Your task to perform on an android device: Open Google Maps and go to "Timeline" Image 0: 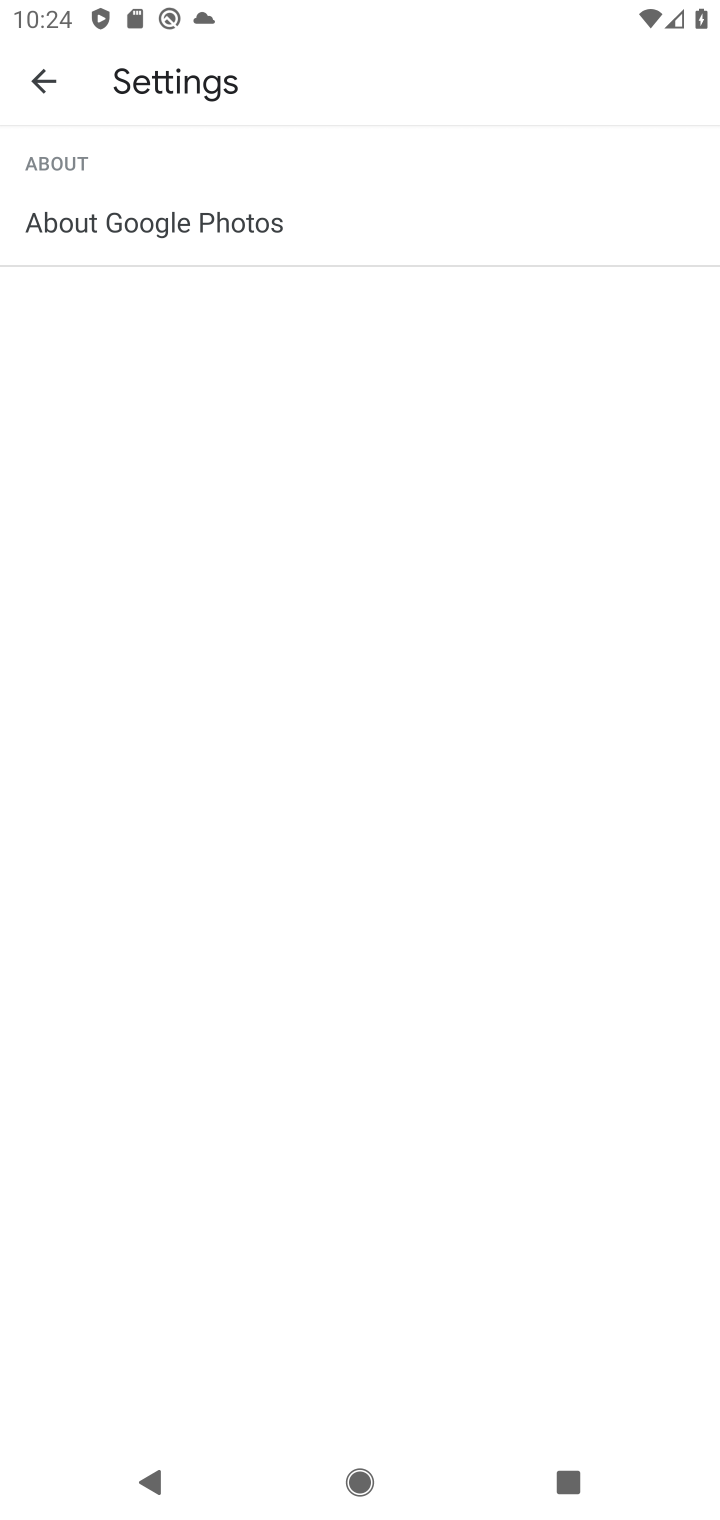
Step 0: press back button
Your task to perform on an android device: Open Google Maps and go to "Timeline" Image 1: 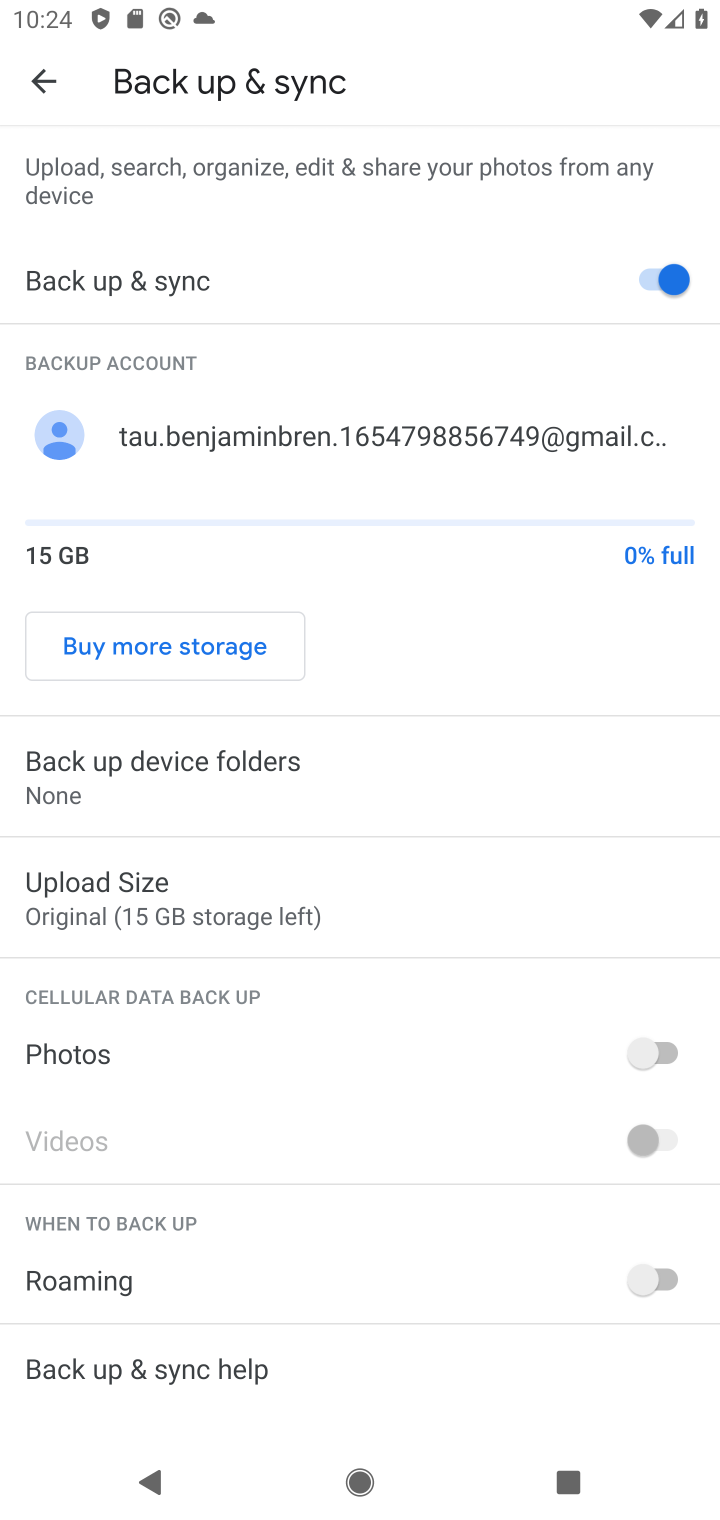
Step 1: press back button
Your task to perform on an android device: Open Google Maps and go to "Timeline" Image 2: 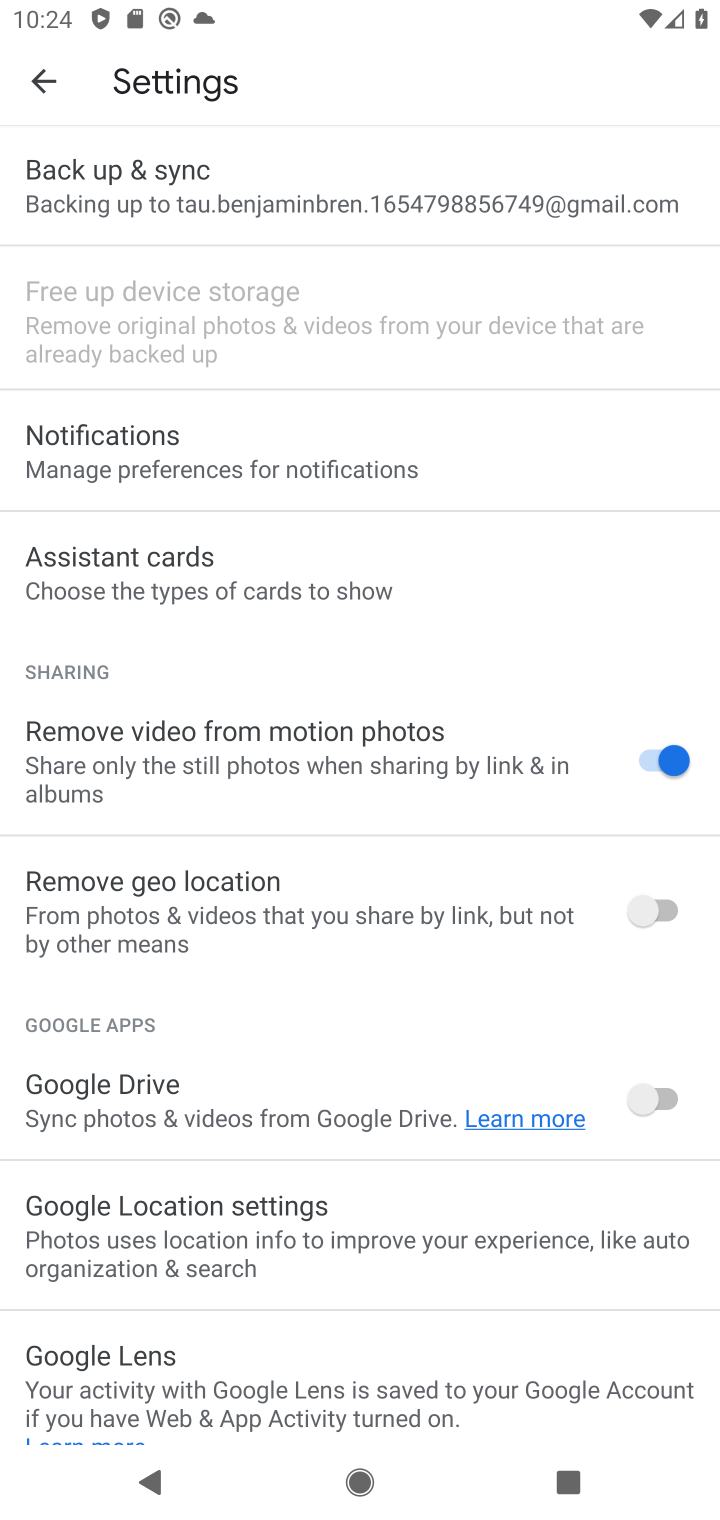
Step 2: press back button
Your task to perform on an android device: Open Google Maps and go to "Timeline" Image 3: 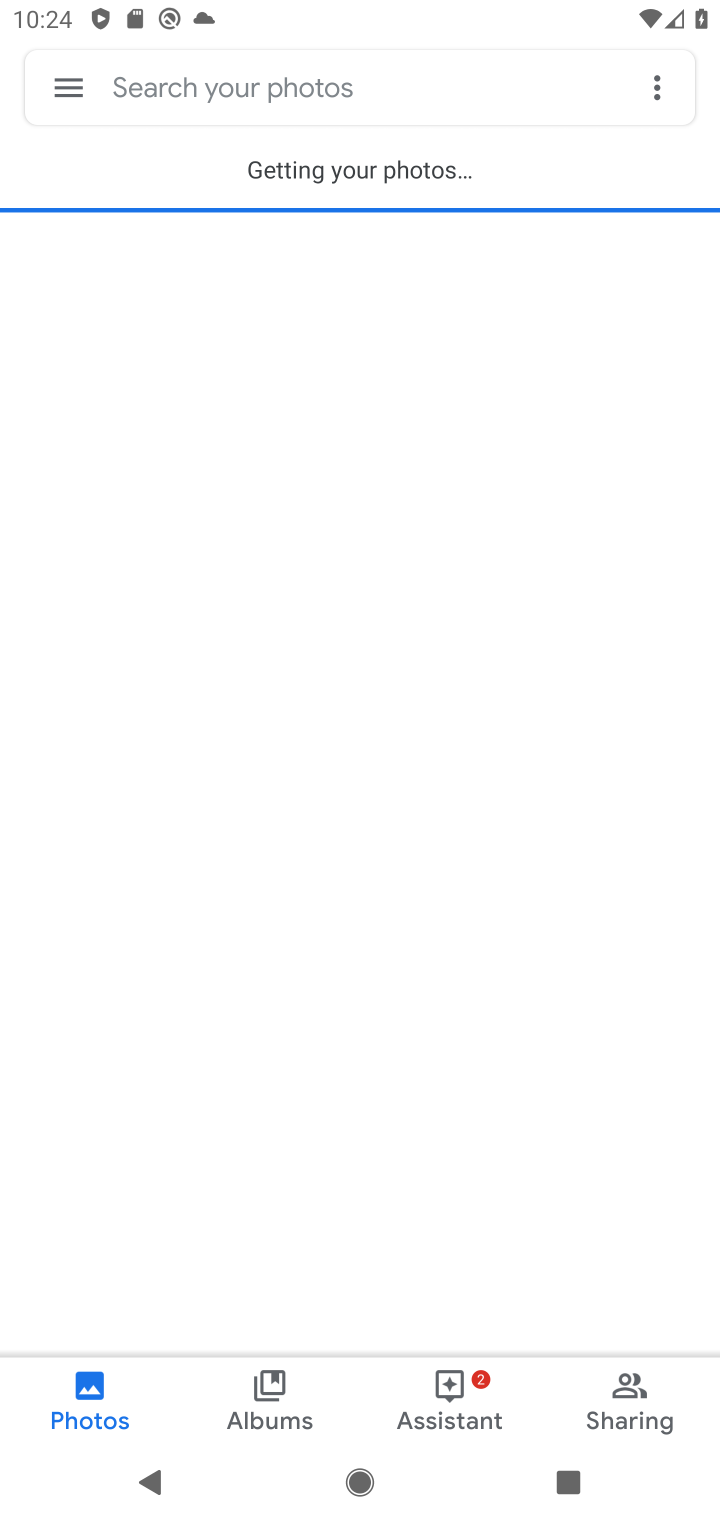
Step 3: press home button
Your task to perform on an android device: Open Google Maps and go to "Timeline" Image 4: 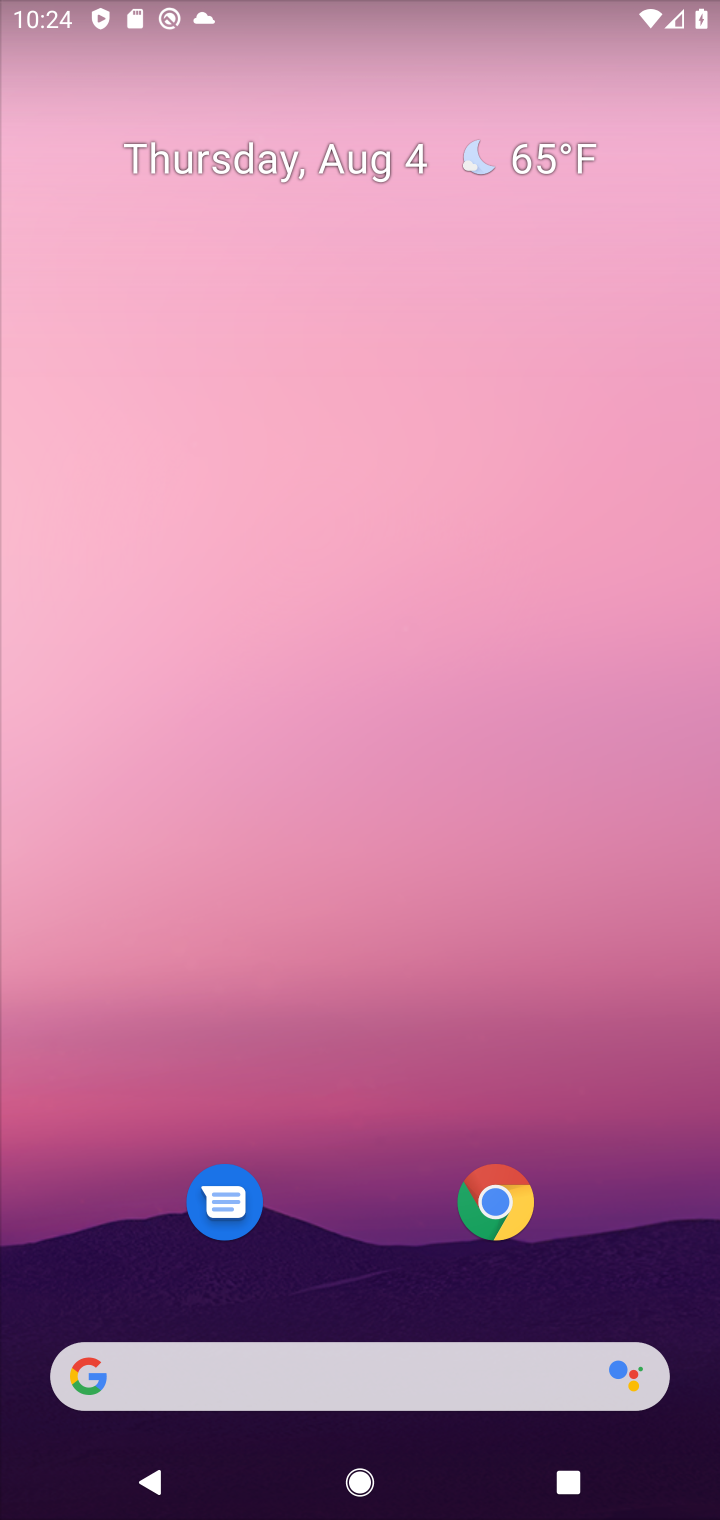
Step 4: drag from (389, 1076) to (501, 12)
Your task to perform on an android device: Open Google Maps and go to "Timeline" Image 5: 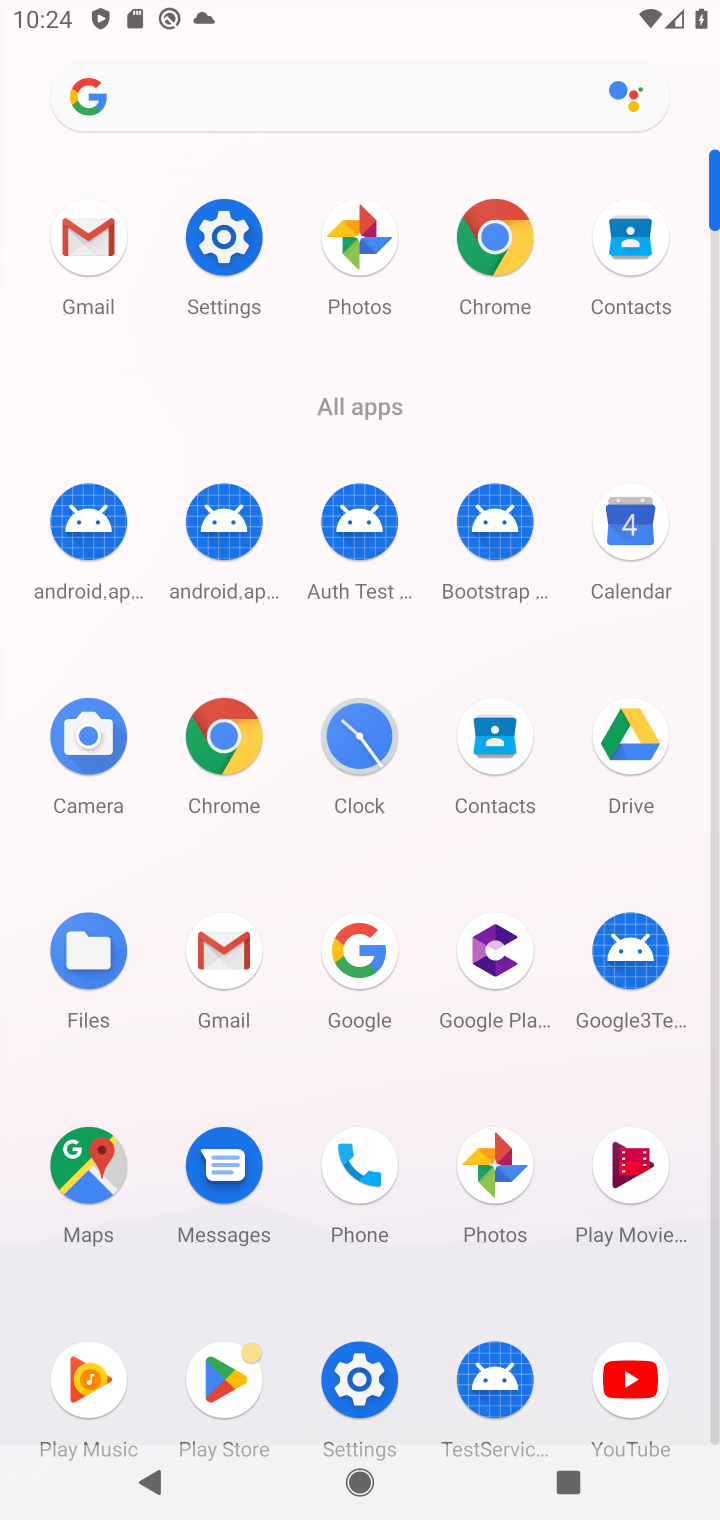
Step 5: click (107, 1167)
Your task to perform on an android device: Open Google Maps and go to "Timeline" Image 6: 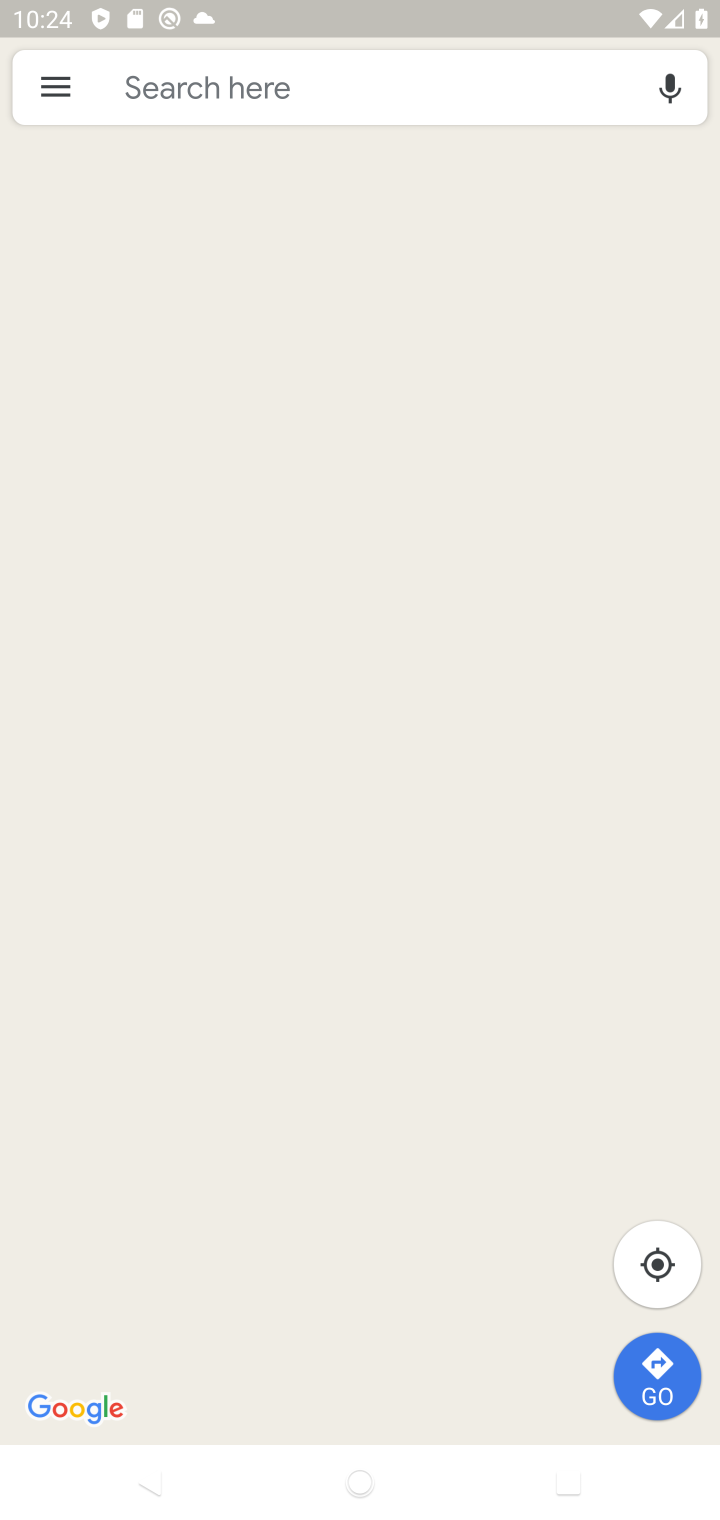
Step 6: click (78, 77)
Your task to perform on an android device: Open Google Maps and go to "Timeline" Image 7: 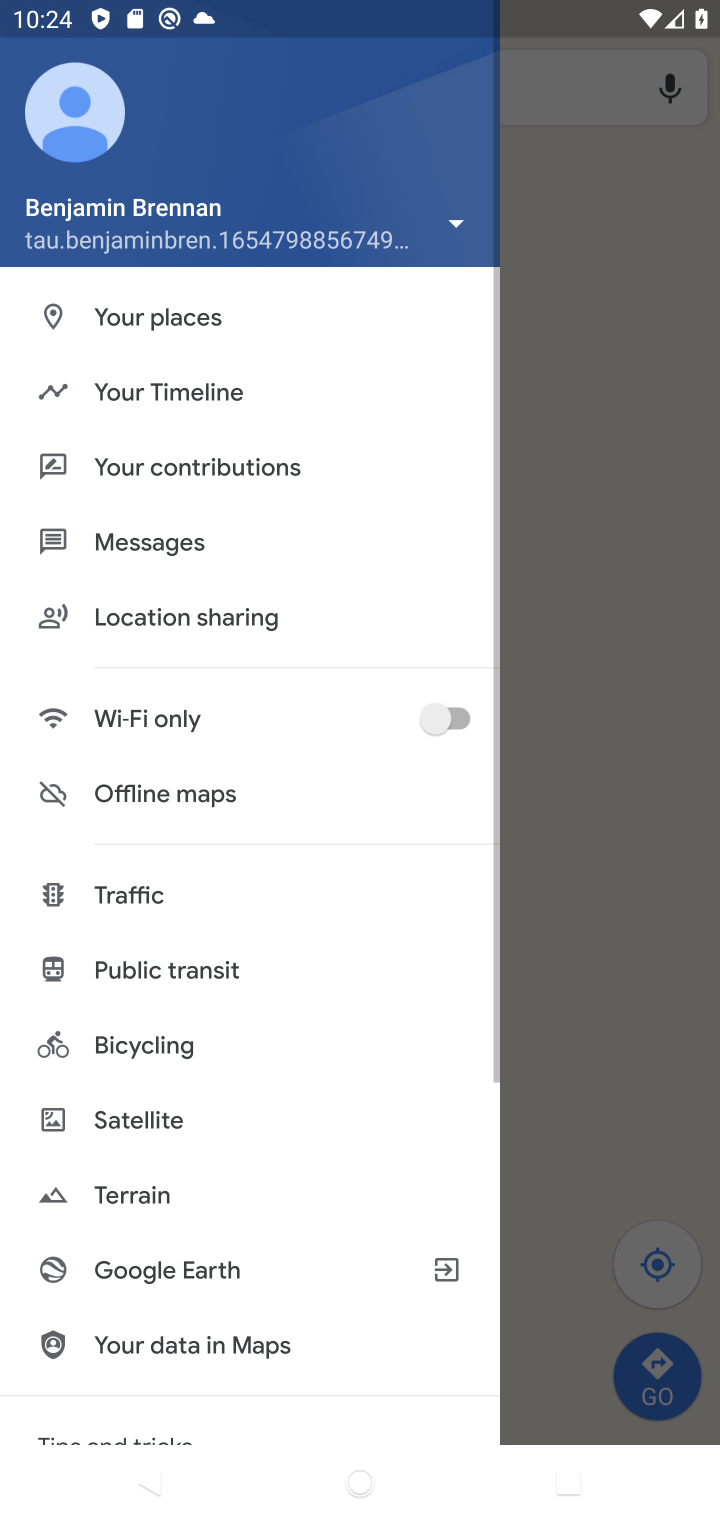
Step 7: click (179, 399)
Your task to perform on an android device: Open Google Maps and go to "Timeline" Image 8: 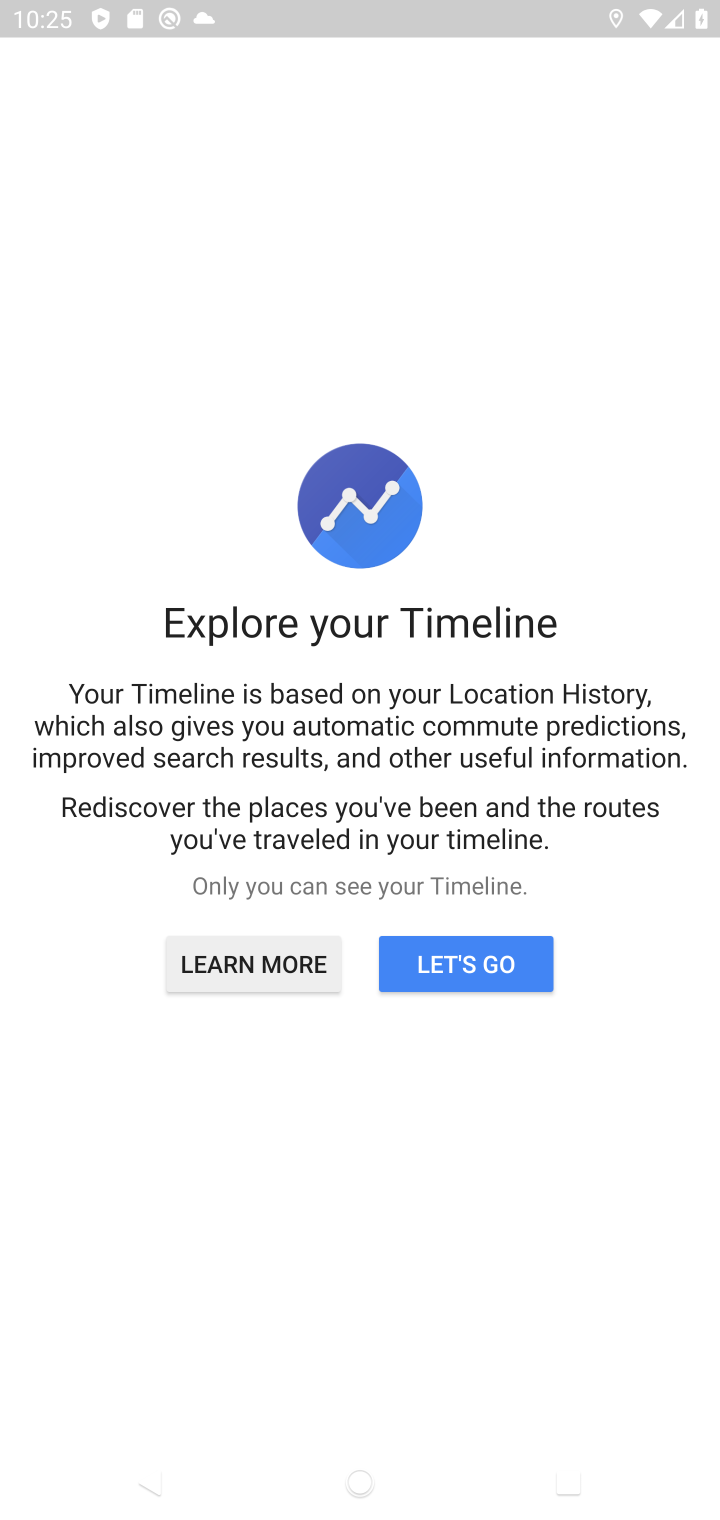
Step 8: click (401, 957)
Your task to perform on an android device: Open Google Maps and go to "Timeline" Image 9: 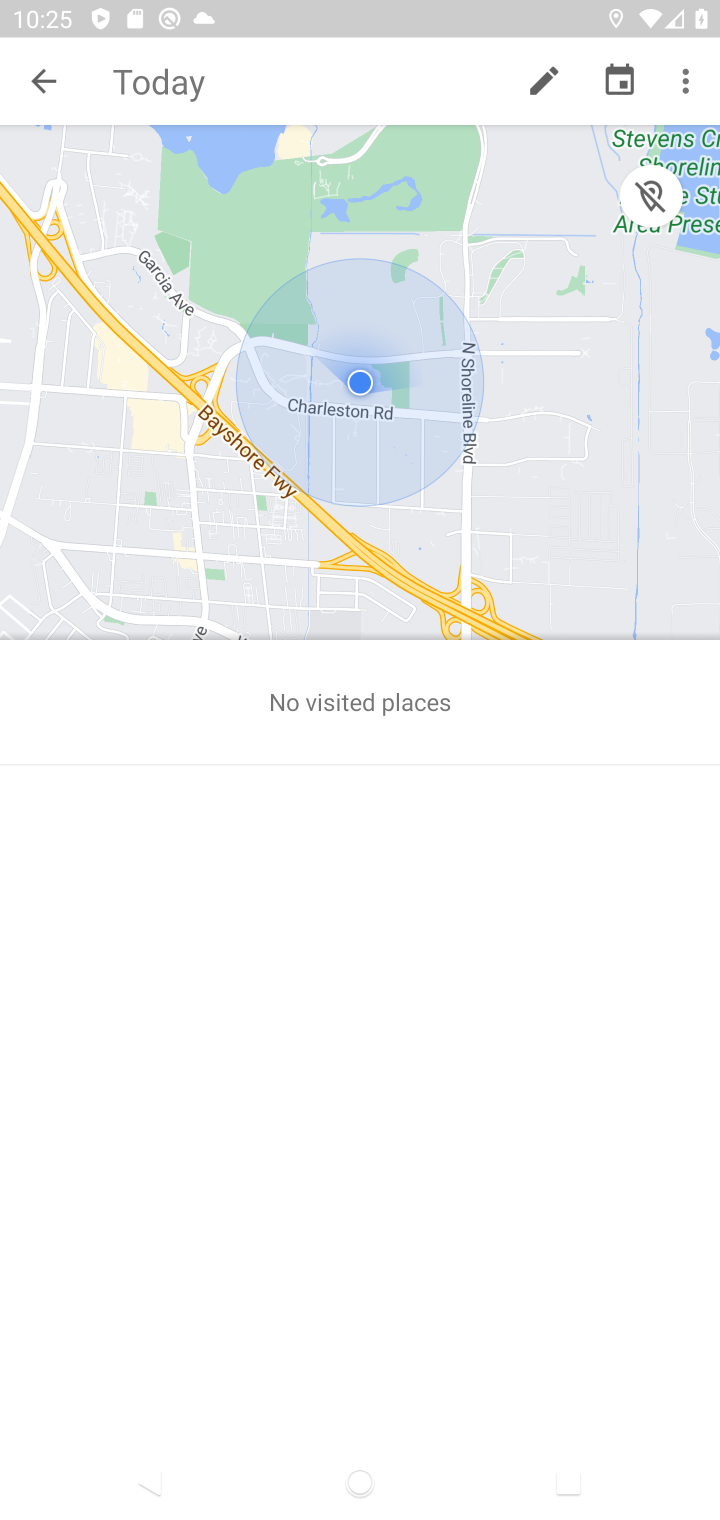
Step 9: press back button
Your task to perform on an android device: Open Google Maps and go to "Timeline" Image 10: 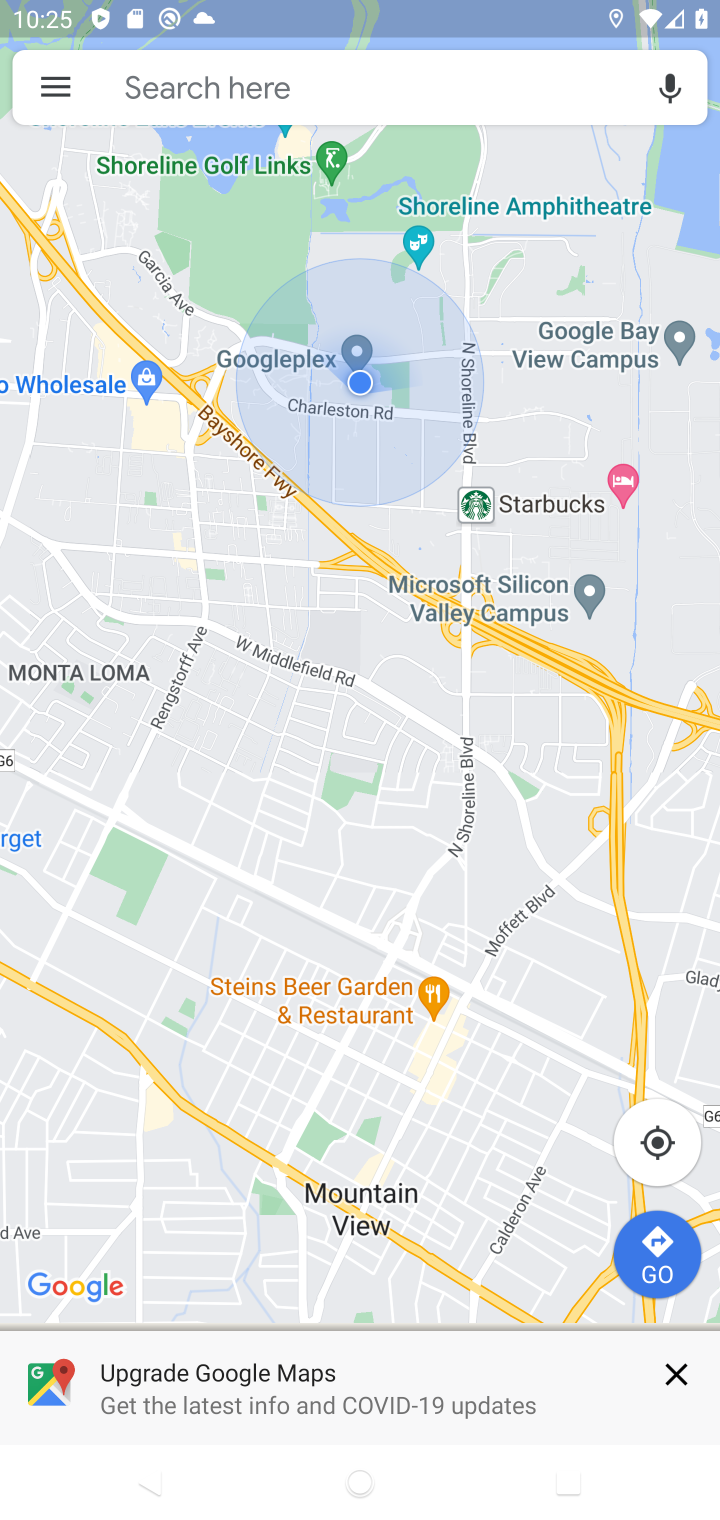
Step 10: press back button
Your task to perform on an android device: Open Google Maps and go to "Timeline" Image 11: 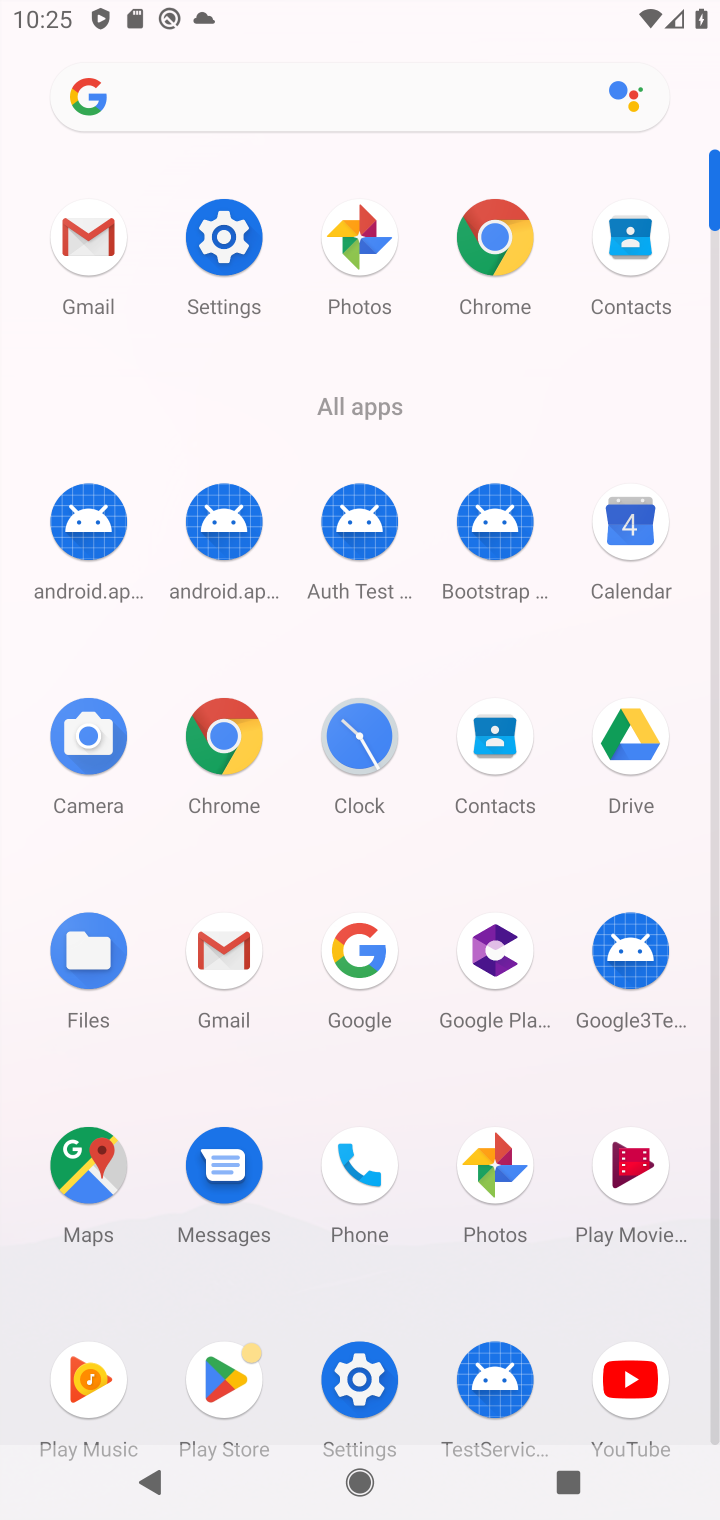
Step 11: click (92, 1172)
Your task to perform on an android device: Open Google Maps and go to "Timeline" Image 12: 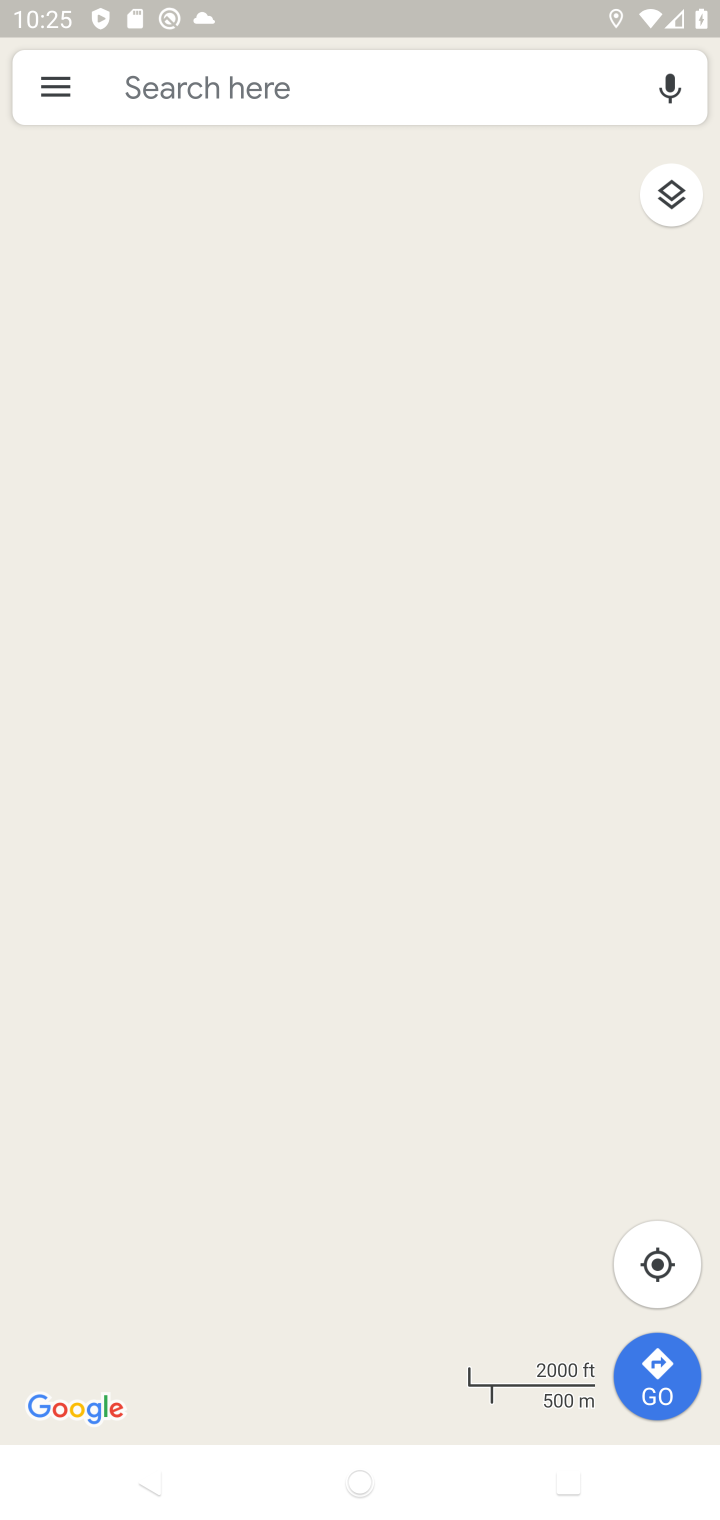
Step 12: click (75, 71)
Your task to perform on an android device: Open Google Maps and go to "Timeline" Image 13: 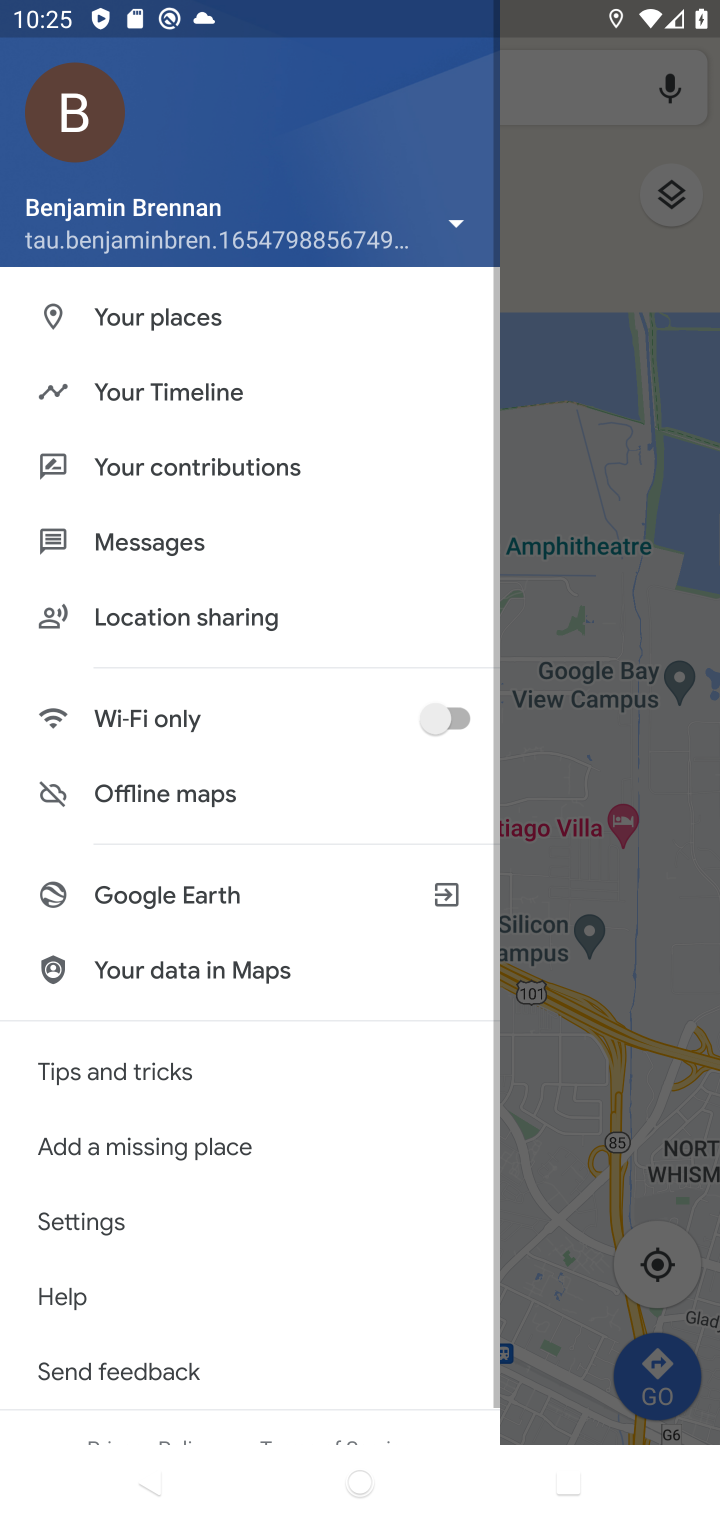
Step 13: click (156, 405)
Your task to perform on an android device: Open Google Maps and go to "Timeline" Image 14: 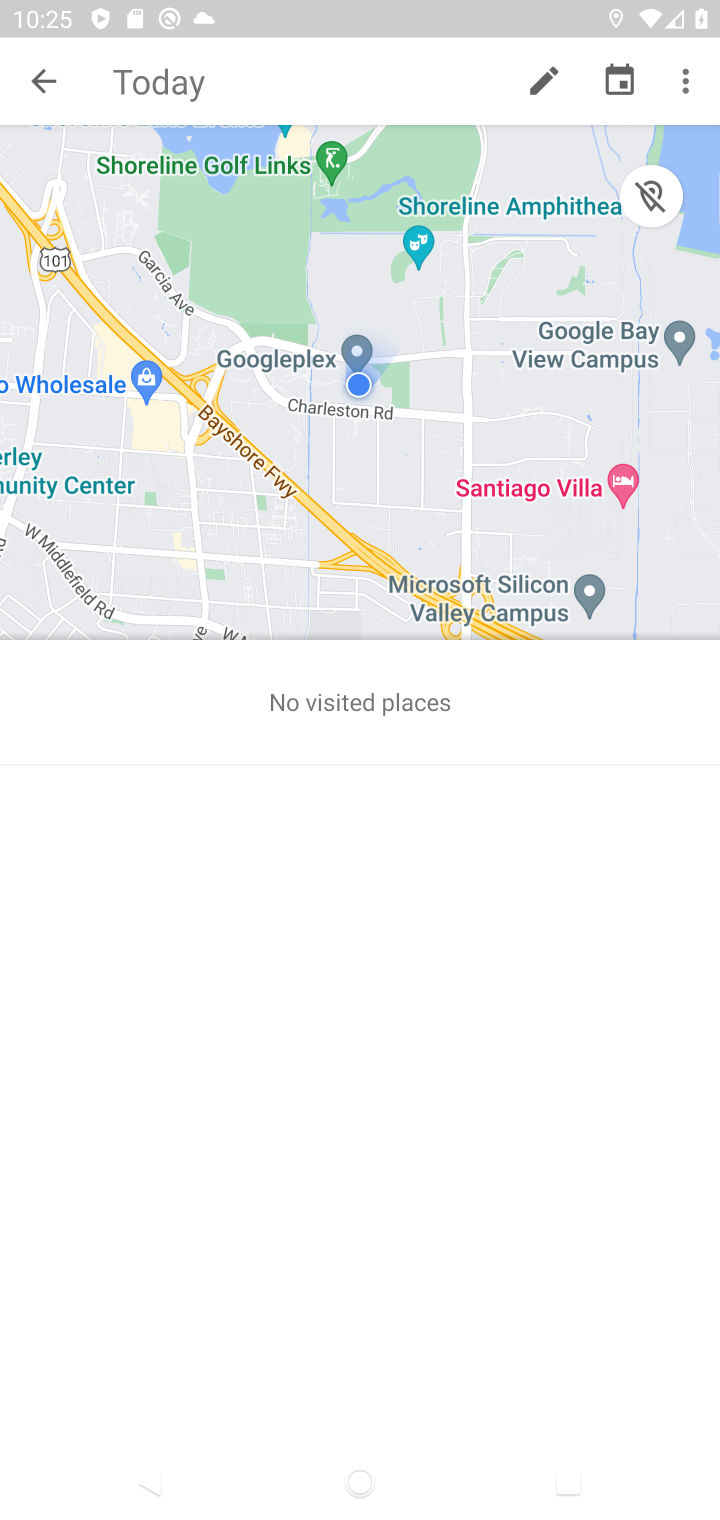
Step 14: task complete